Your task to perform on an android device: toggle data saver in the chrome app Image 0: 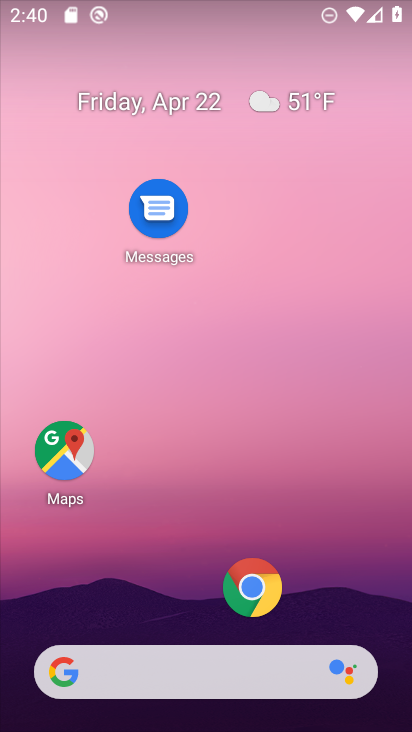
Step 0: click (269, 586)
Your task to perform on an android device: toggle data saver in the chrome app Image 1: 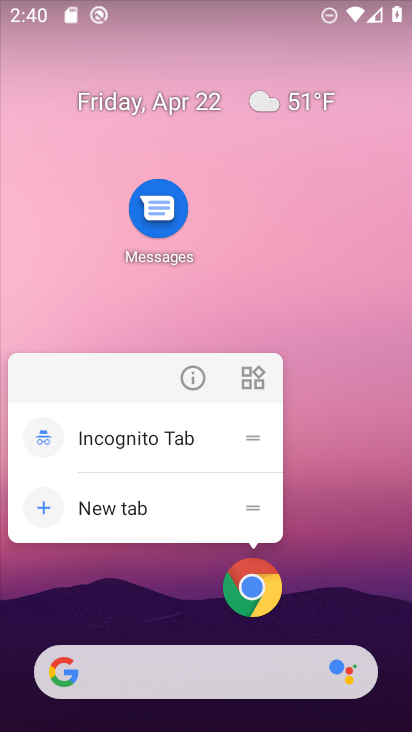
Step 1: click (269, 586)
Your task to perform on an android device: toggle data saver in the chrome app Image 2: 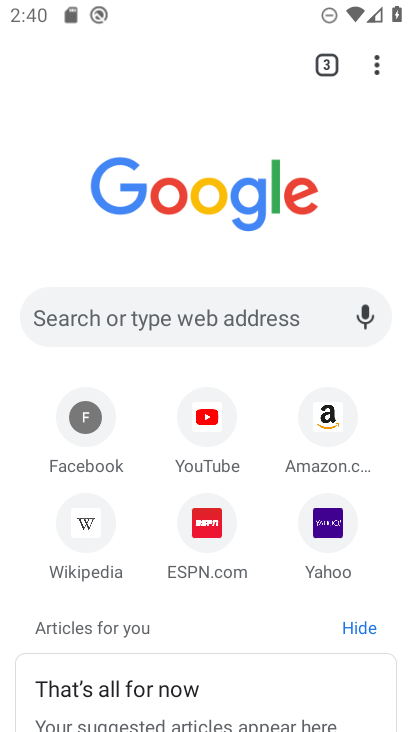
Step 2: drag from (379, 64) to (183, 537)
Your task to perform on an android device: toggle data saver in the chrome app Image 3: 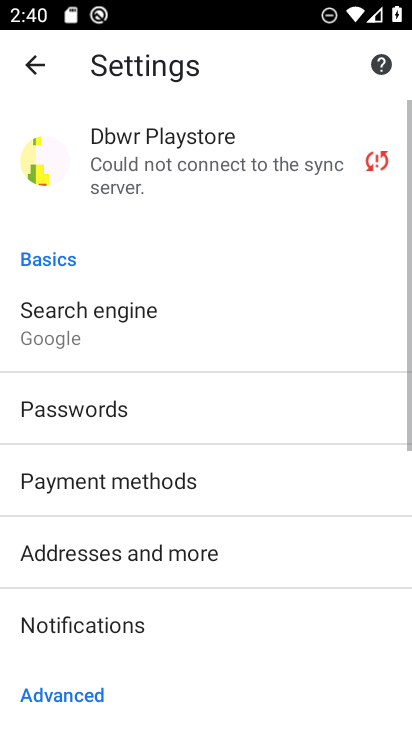
Step 3: drag from (210, 681) to (230, 329)
Your task to perform on an android device: toggle data saver in the chrome app Image 4: 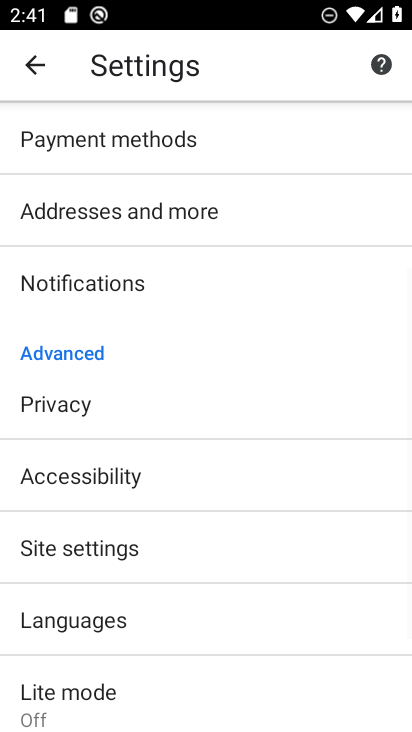
Step 4: drag from (207, 599) to (238, 378)
Your task to perform on an android device: toggle data saver in the chrome app Image 5: 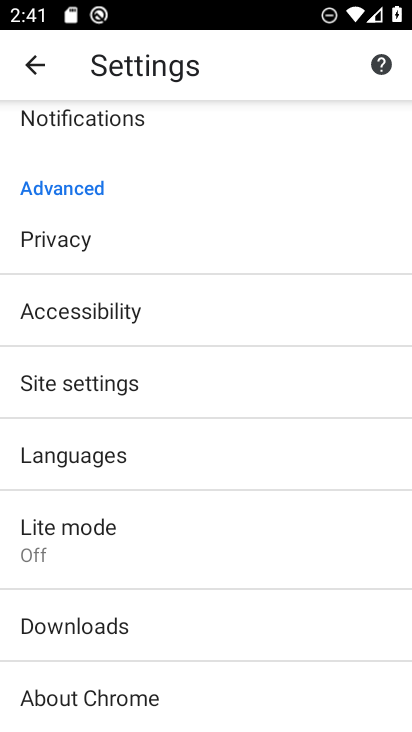
Step 5: click (133, 525)
Your task to perform on an android device: toggle data saver in the chrome app Image 6: 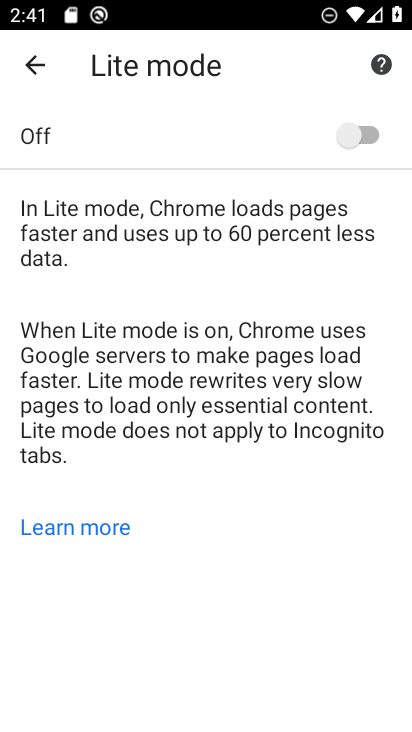
Step 6: click (378, 138)
Your task to perform on an android device: toggle data saver in the chrome app Image 7: 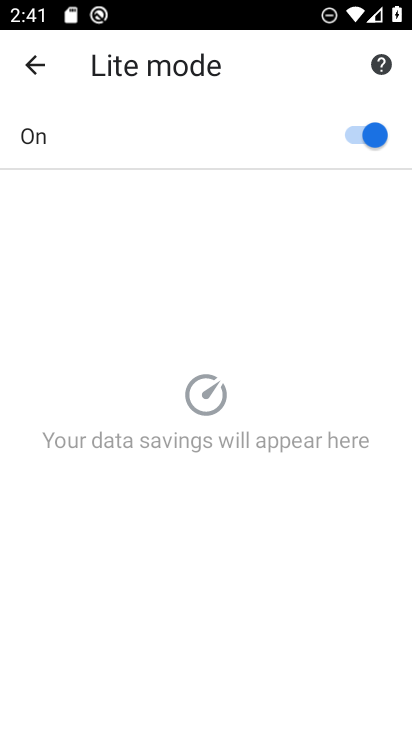
Step 7: task complete